Your task to perform on an android device: Show me popular games on the Play Store Image 0: 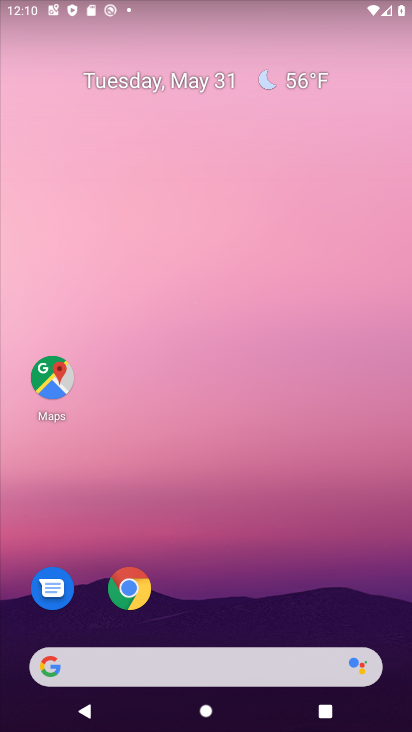
Step 0: drag from (175, 622) to (195, 275)
Your task to perform on an android device: Show me popular games on the Play Store Image 1: 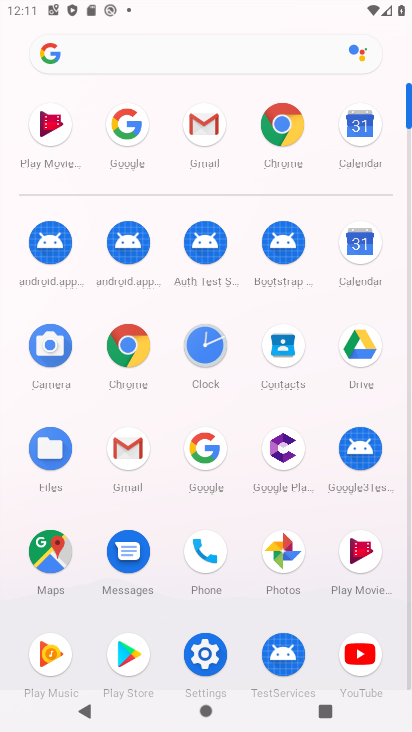
Step 1: click (124, 667)
Your task to perform on an android device: Show me popular games on the Play Store Image 2: 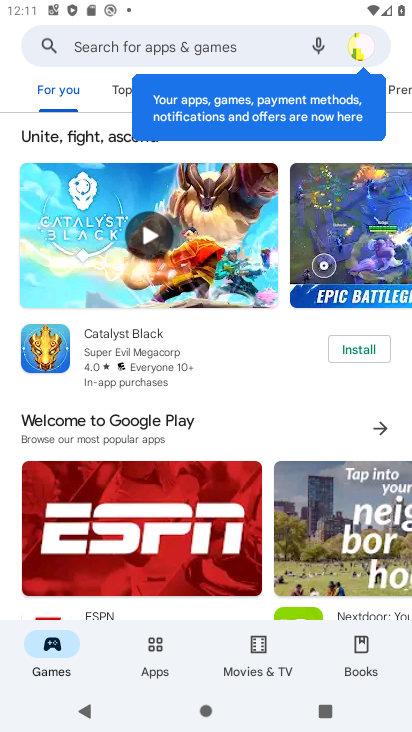
Step 2: task complete